Your task to perform on an android device: Open the phone app and click the voicemail tab. Image 0: 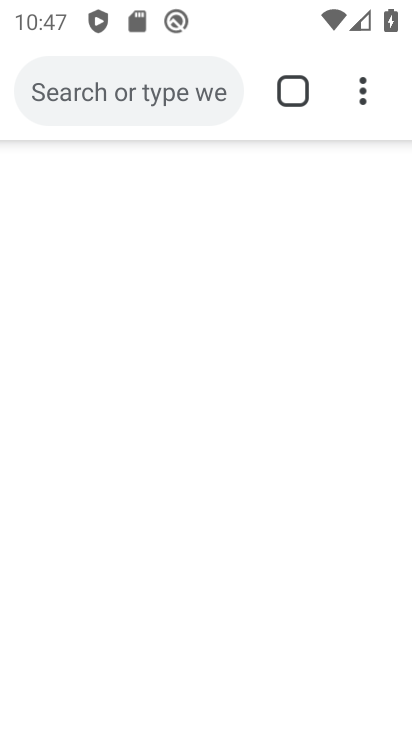
Step 0: drag from (390, 599) to (410, 539)
Your task to perform on an android device: Open the phone app and click the voicemail tab. Image 1: 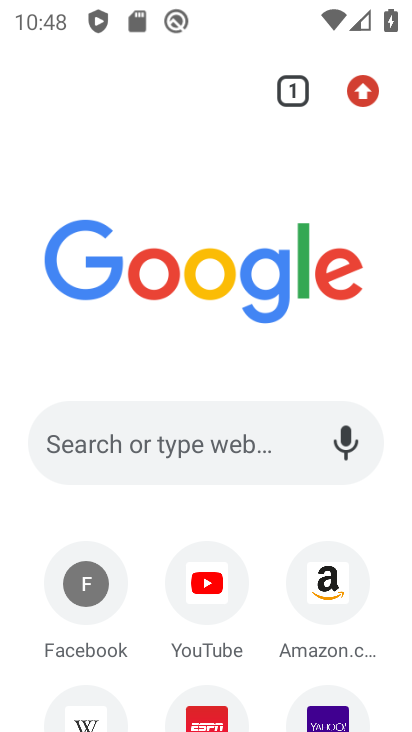
Step 1: press home button
Your task to perform on an android device: Open the phone app and click the voicemail tab. Image 2: 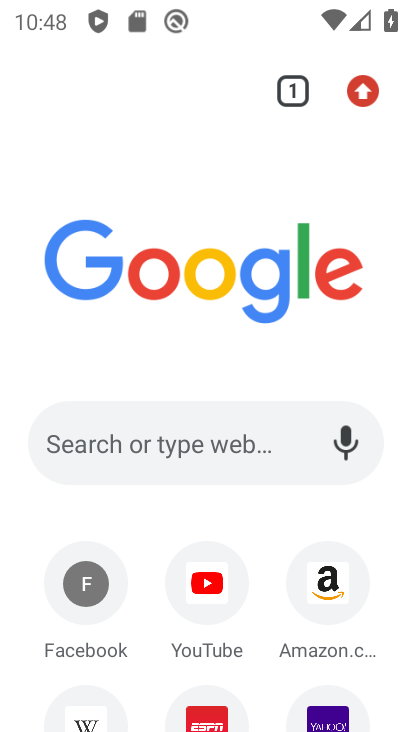
Step 2: drag from (410, 539) to (408, 318)
Your task to perform on an android device: Open the phone app and click the voicemail tab. Image 3: 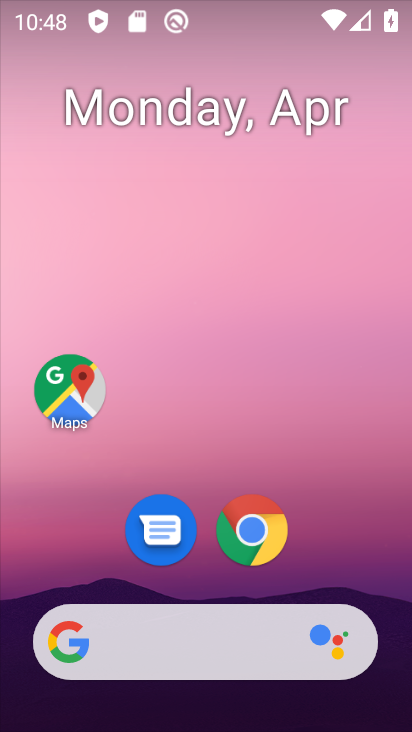
Step 3: drag from (355, 579) to (269, 97)
Your task to perform on an android device: Open the phone app and click the voicemail tab. Image 4: 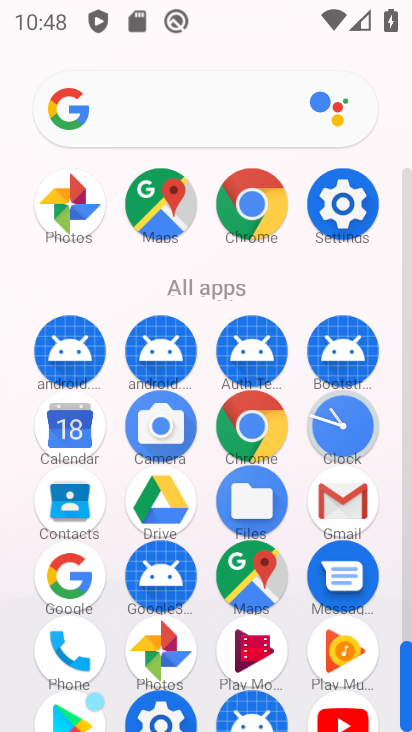
Step 4: click (65, 632)
Your task to perform on an android device: Open the phone app and click the voicemail tab. Image 5: 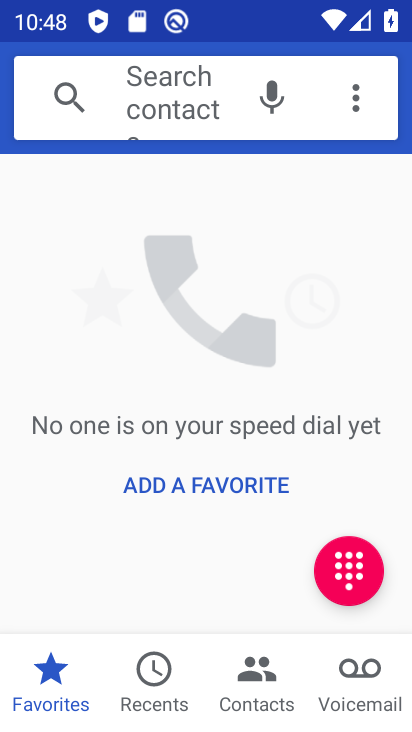
Step 5: click (346, 671)
Your task to perform on an android device: Open the phone app and click the voicemail tab. Image 6: 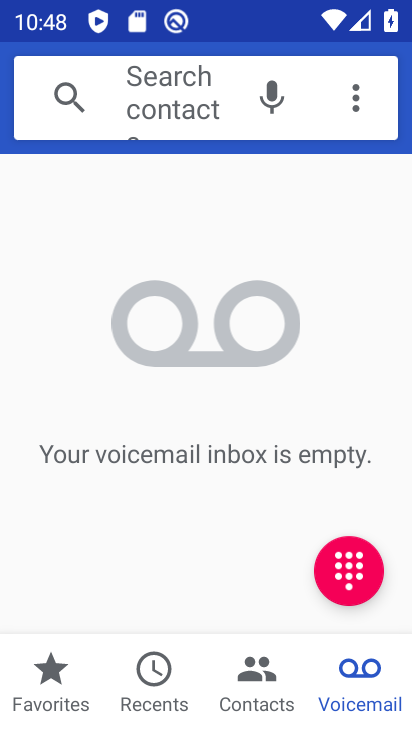
Step 6: task complete